Your task to perform on an android device: Open location settings Image 0: 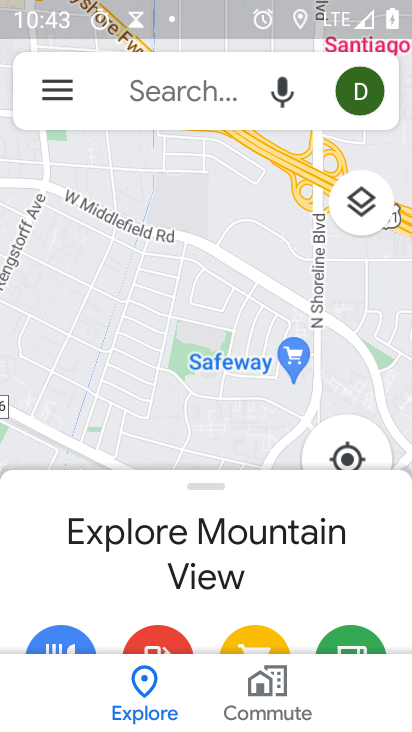
Step 0: press home button
Your task to perform on an android device: Open location settings Image 1: 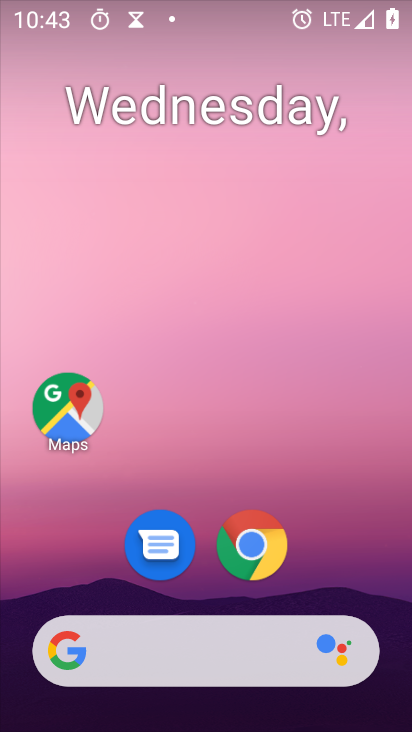
Step 1: drag from (219, 651) to (308, 88)
Your task to perform on an android device: Open location settings Image 2: 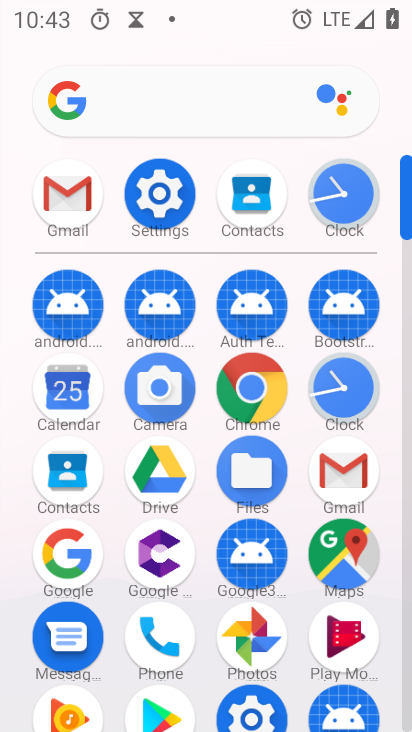
Step 2: click (153, 200)
Your task to perform on an android device: Open location settings Image 3: 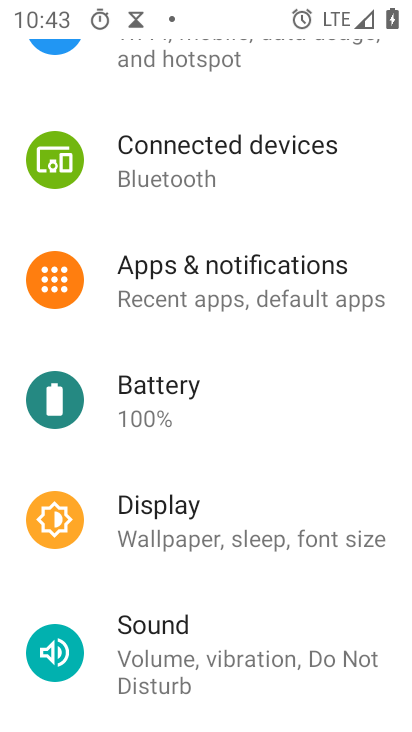
Step 3: drag from (283, 635) to (348, 135)
Your task to perform on an android device: Open location settings Image 4: 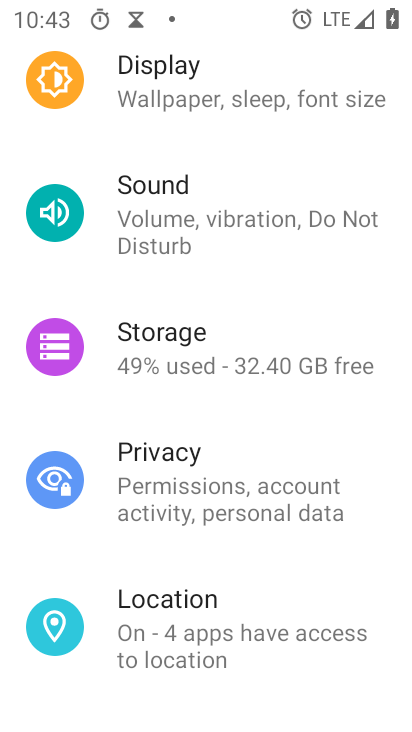
Step 4: drag from (224, 618) to (318, 229)
Your task to perform on an android device: Open location settings Image 5: 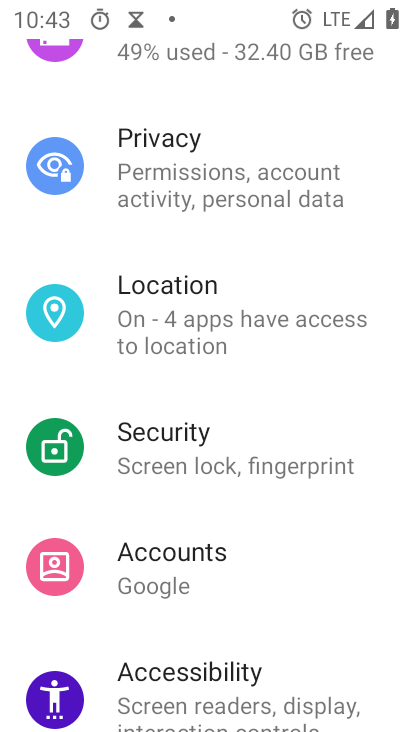
Step 5: click (171, 295)
Your task to perform on an android device: Open location settings Image 6: 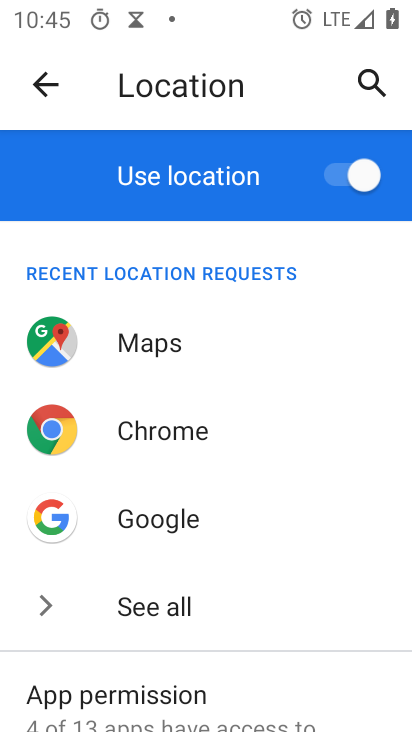
Step 6: task complete